Your task to perform on an android device: change notifications settings Image 0: 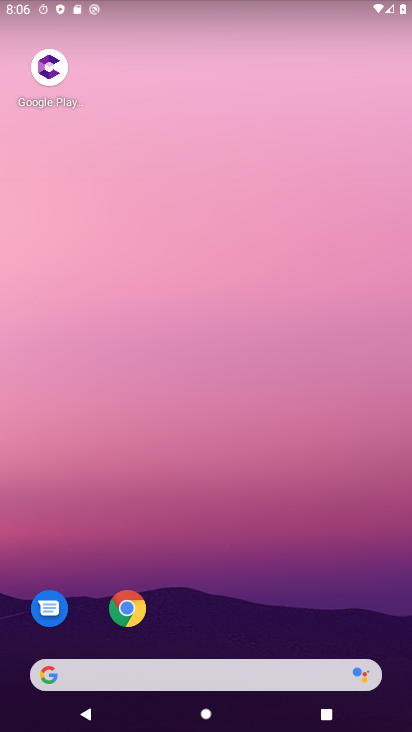
Step 0: drag from (335, 647) to (304, 80)
Your task to perform on an android device: change notifications settings Image 1: 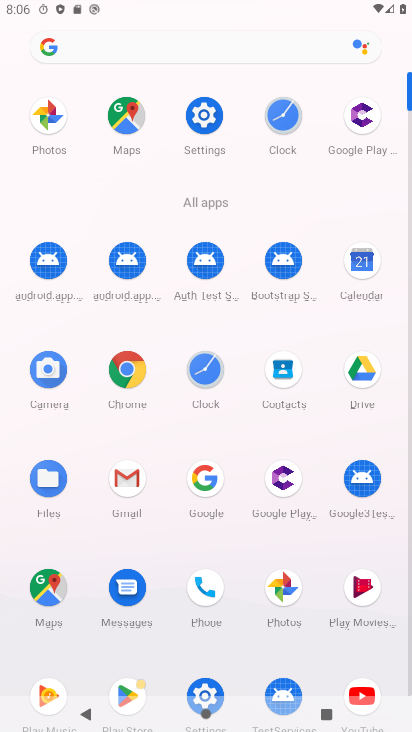
Step 1: click (204, 679)
Your task to perform on an android device: change notifications settings Image 2: 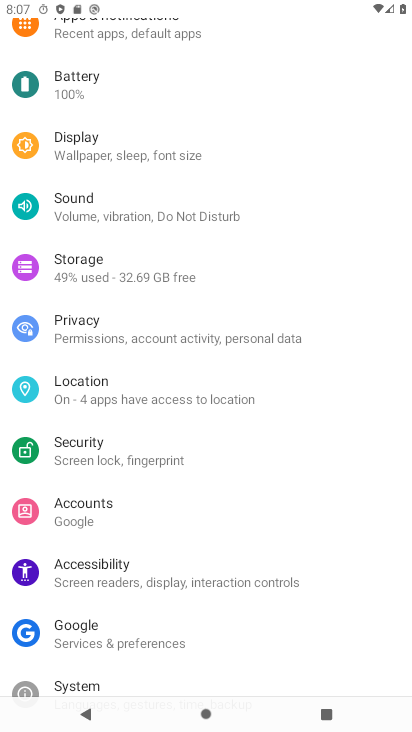
Step 2: drag from (184, 110) to (180, 640)
Your task to perform on an android device: change notifications settings Image 3: 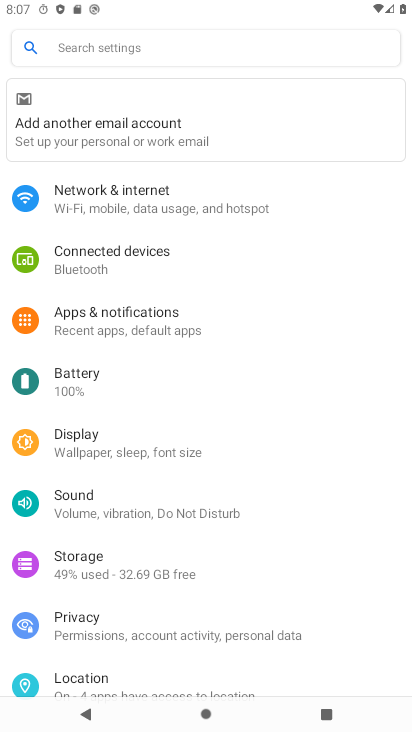
Step 3: click (54, 326)
Your task to perform on an android device: change notifications settings Image 4: 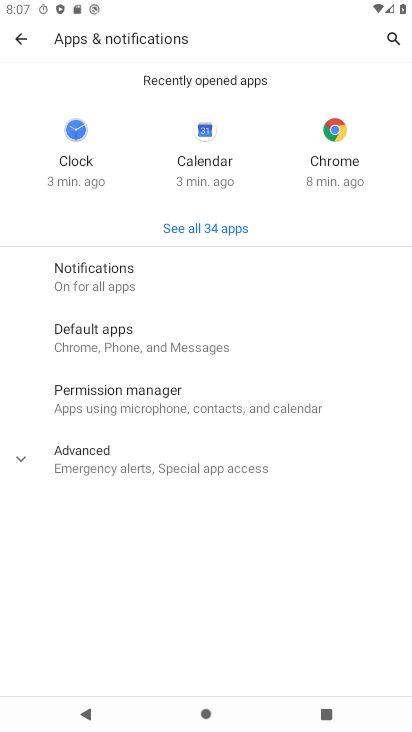
Step 4: click (89, 277)
Your task to perform on an android device: change notifications settings Image 5: 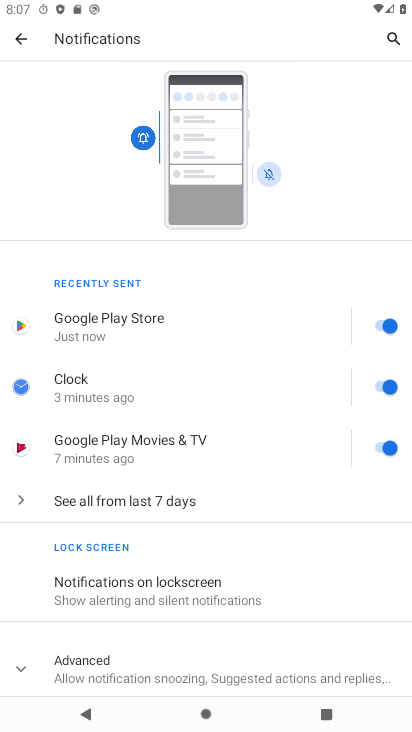
Step 5: drag from (213, 635) to (190, 209)
Your task to perform on an android device: change notifications settings Image 6: 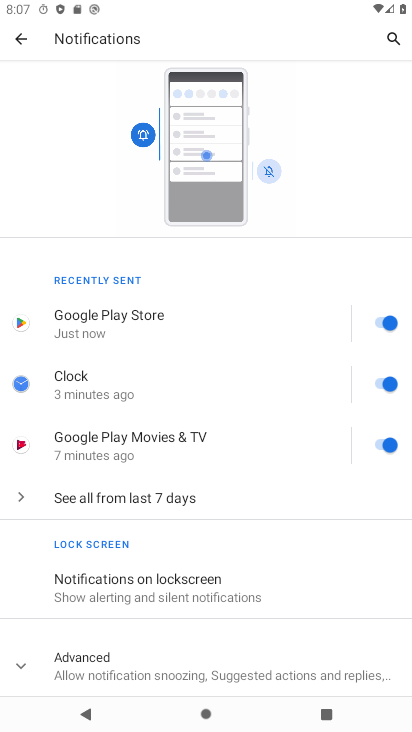
Step 6: click (167, 668)
Your task to perform on an android device: change notifications settings Image 7: 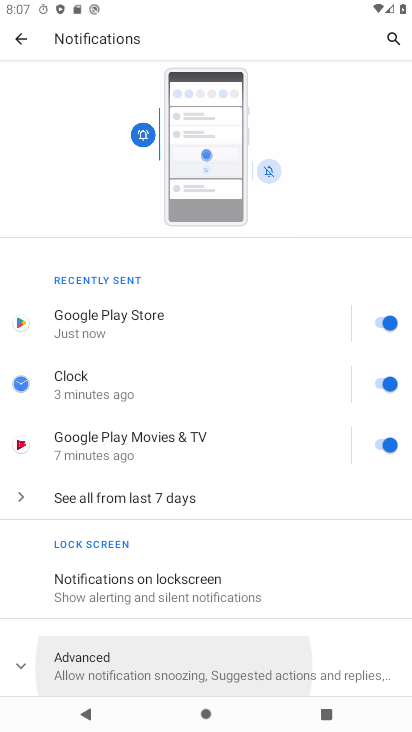
Step 7: drag from (199, 602) to (202, 68)
Your task to perform on an android device: change notifications settings Image 8: 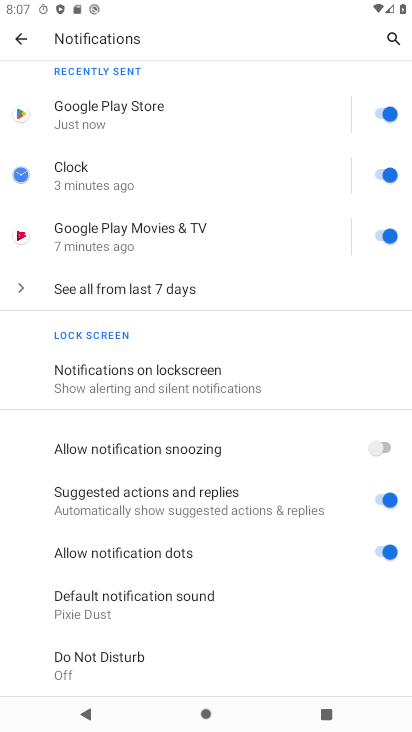
Step 8: click (273, 438)
Your task to perform on an android device: change notifications settings Image 9: 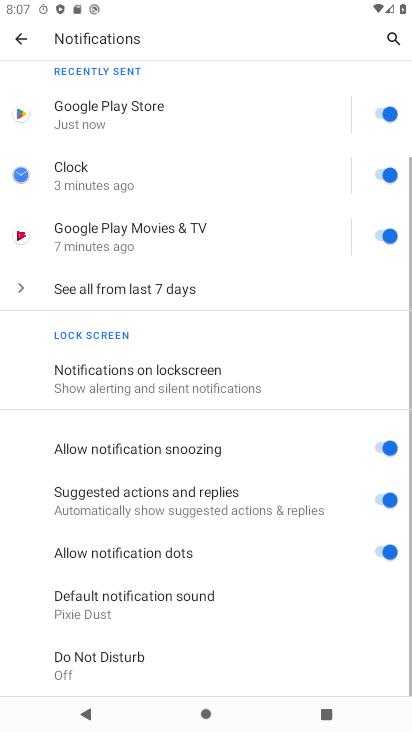
Step 9: click (280, 501)
Your task to perform on an android device: change notifications settings Image 10: 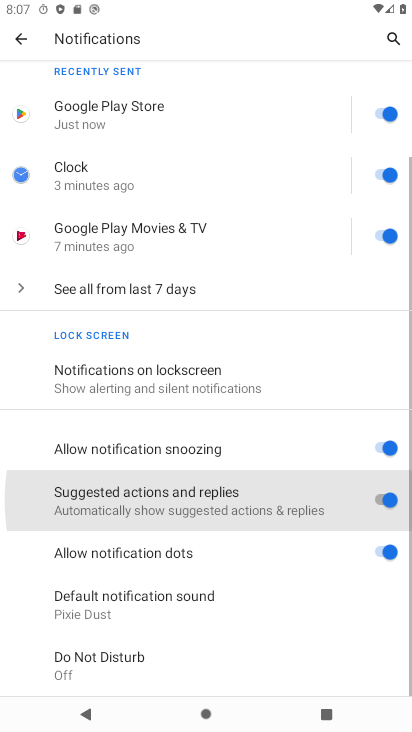
Step 10: click (284, 537)
Your task to perform on an android device: change notifications settings Image 11: 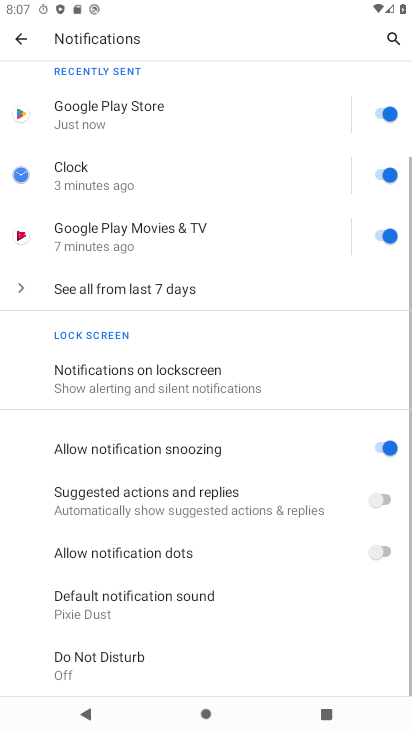
Step 11: click (284, 558)
Your task to perform on an android device: change notifications settings Image 12: 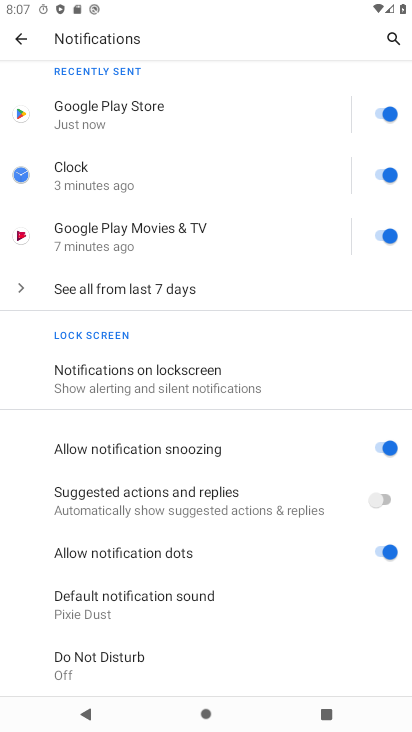
Step 12: task complete